Your task to perform on an android device: clear history in the chrome app Image 0: 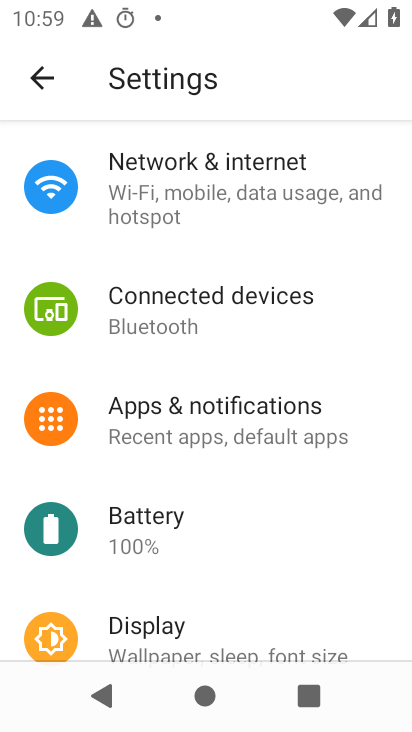
Step 0: press back button
Your task to perform on an android device: clear history in the chrome app Image 1: 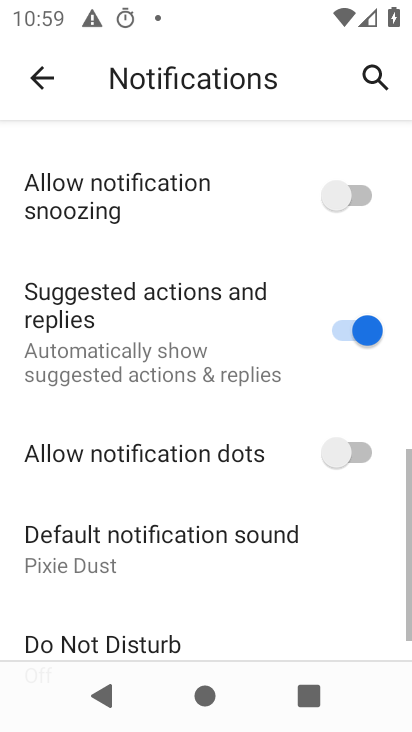
Step 1: press back button
Your task to perform on an android device: clear history in the chrome app Image 2: 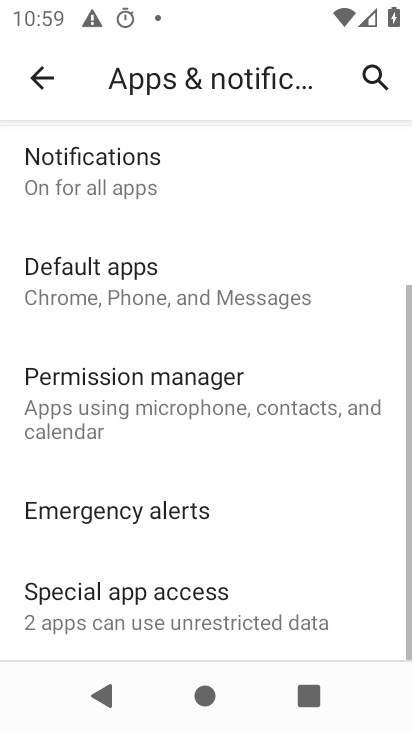
Step 2: press back button
Your task to perform on an android device: clear history in the chrome app Image 3: 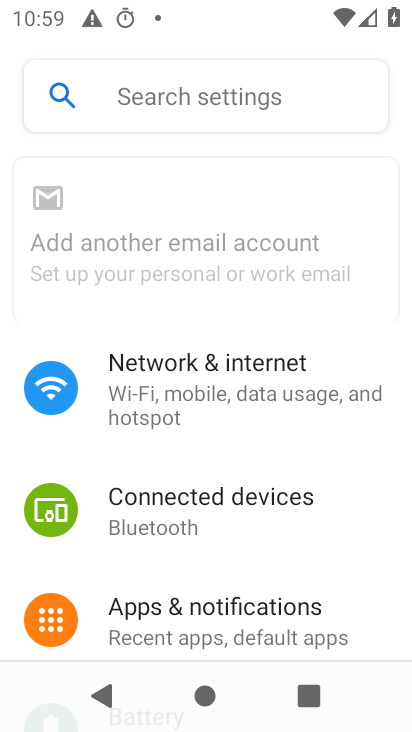
Step 3: press back button
Your task to perform on an android device: clear history in the chrome app Image 4: 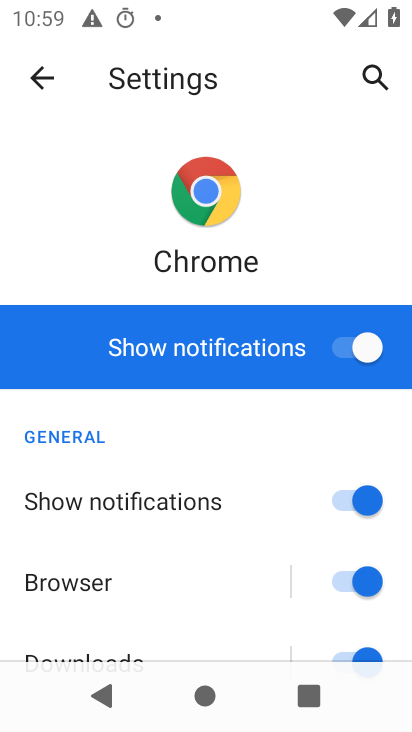
Step 4: press back button
Your task to perform on an android device: clear history in the chrome app Image 5: 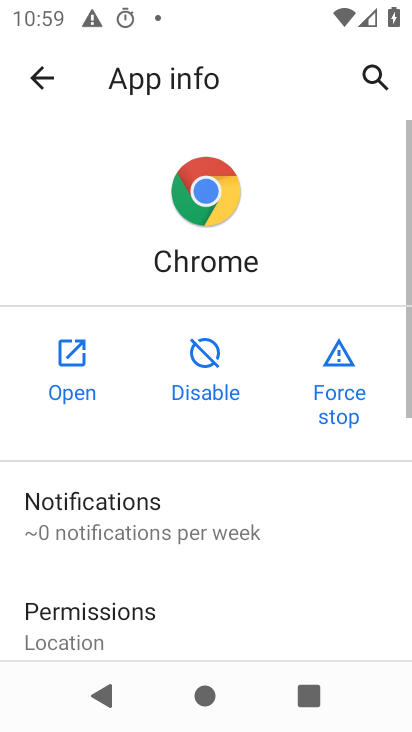
Step 5: press back button
Your task to perform on an android device: clear history in the chrome app Image 6: 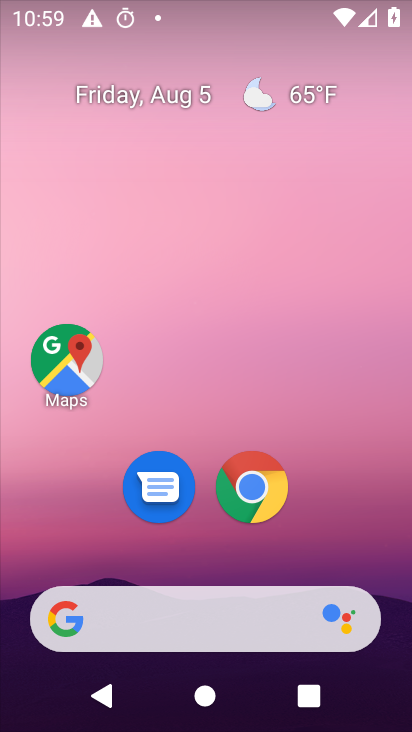
Step 6: click (265, 486)
Your task to perform on an android device: clear history in the chrome app Image 7: 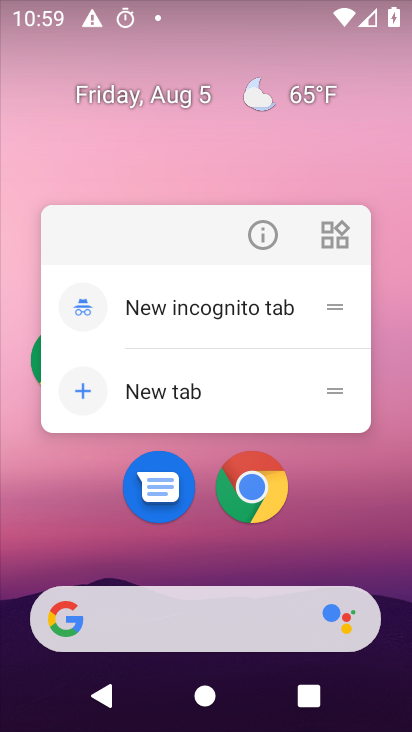
Step 7: click (244, 477)
Your task to perform on an android device: clear history in the chrome app Image 8: 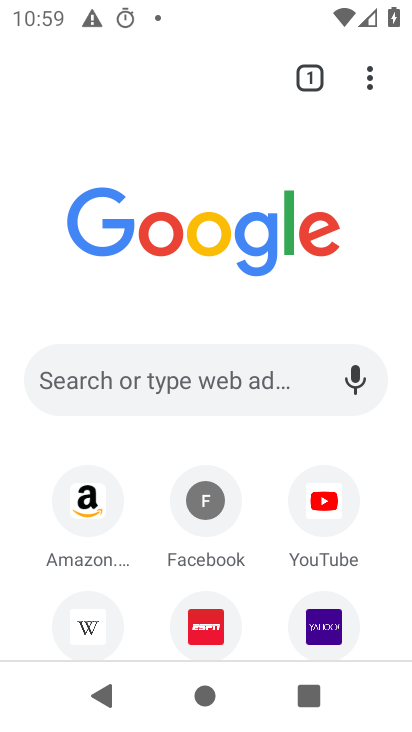
Step 8: drag from (364, 69) to (102, 438)
Your task to perform on an android device: clear history in the chrome app Image 9: 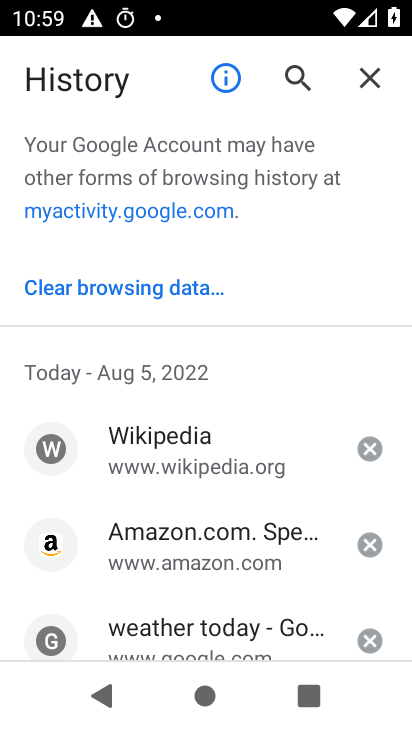
Step 9: click (87, 266)
Your task to perform on an android device: clear history in the chrome app Image 10: 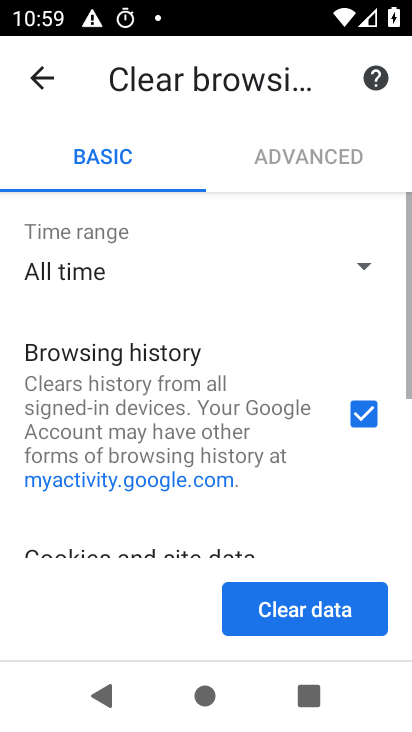
Step 10: drag from (264, 500) to (340, 88)
Your task to perform on an android device: clear history in the chrome app Image 11: 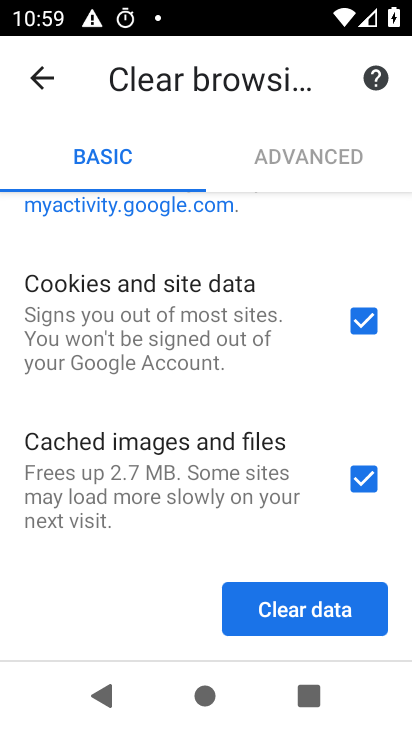
Step 11: click (299, 609)
Your task to perform on an android device: clear history in the chrome app Image 12: 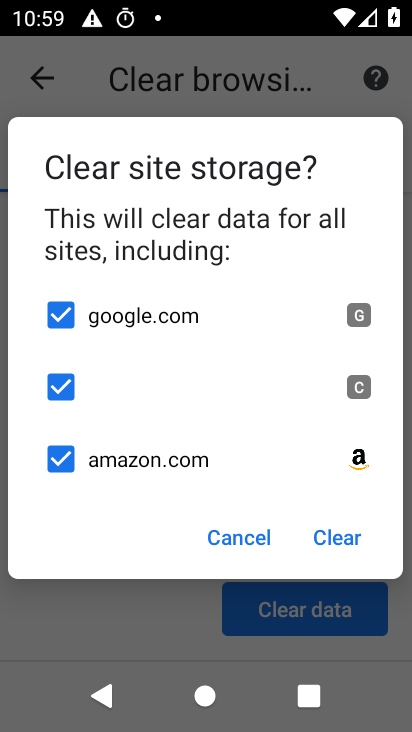
Step 12: click (337, 536)
Your task to perform on an android device: clear history in the chrome app Image 13: 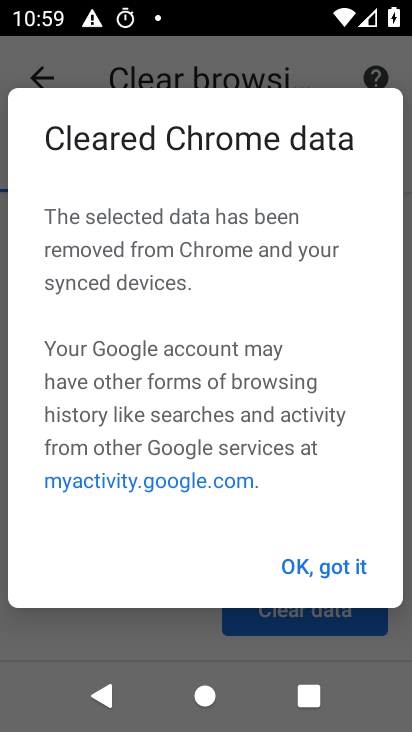
Step 13: click (301, 565)
Your task to perform on an android device: clear history in the chrome app Image 14: 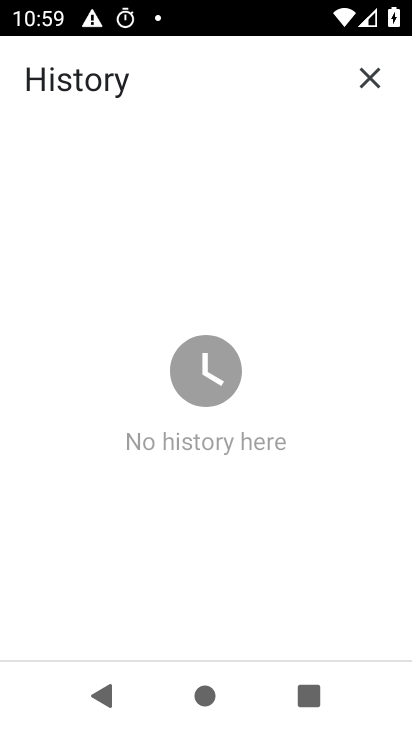
Step 14: task complete